Your task to perform on an android device: toggle improve location accuracy Image 0: 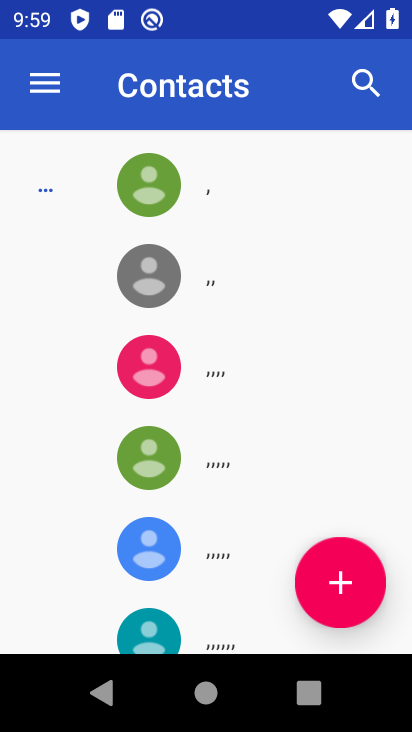
Step 0: press home button
Your task to perform on an android device: toggle improve location accuracy Image 1: 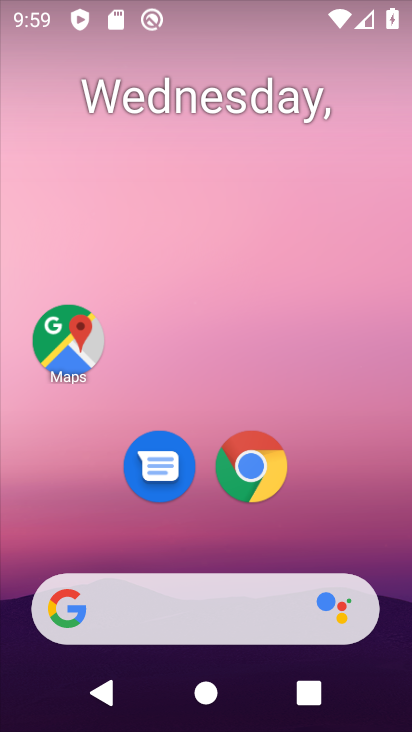
Step 1: drag from (240, 723) to (263, 125)
Your task to perform on an android device: toggle improve location accuracy Image 2: 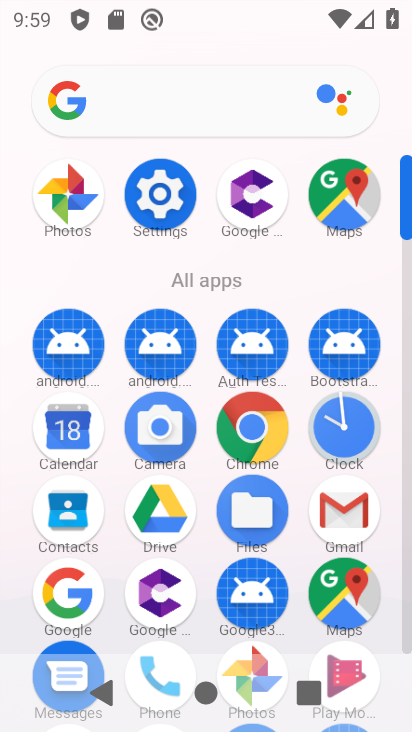
Step 2: click (141, 194)
Your task to perform on an android device: toggle improve location accuracy Image 3: 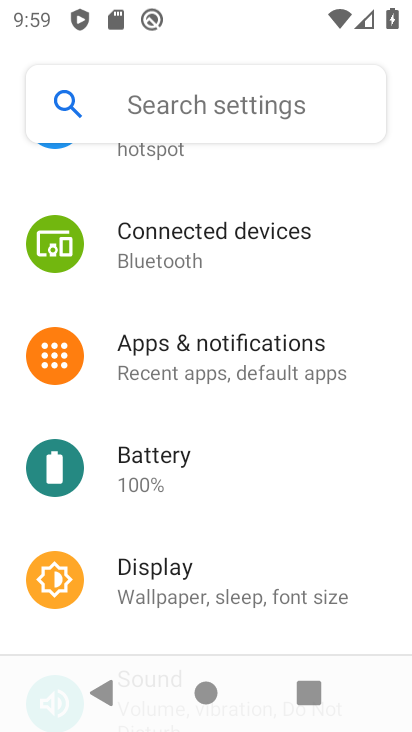
Step 3: drag from (195, 230) to (192, 531)
Your task to perform on an android device: toggle improve location accuracy Image 4: 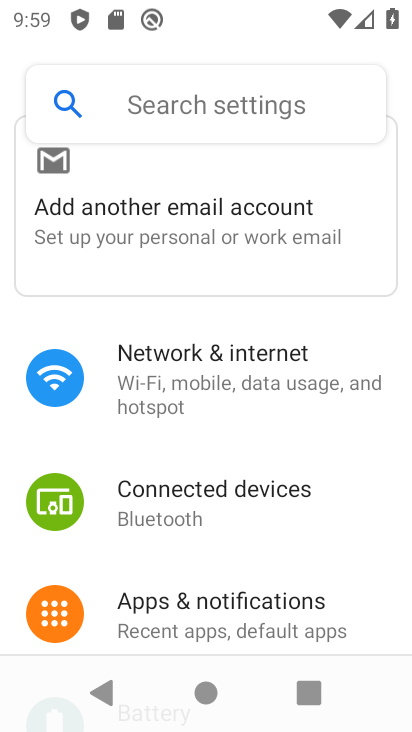
Step 4: drag from (198, 597) to (205, 211)
Your task to perform on an android device: toggle improve location accuracy Image 5: 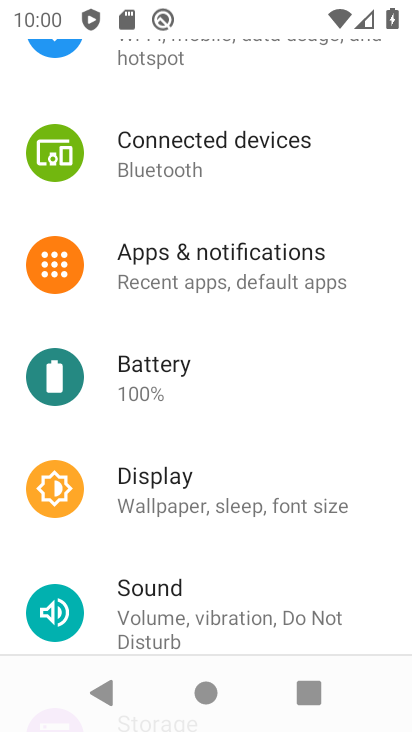
Step 5: drag from (196, 612) to (200, 249)
Your task to perform on an android device: toggle improve location accuracy Image 6: 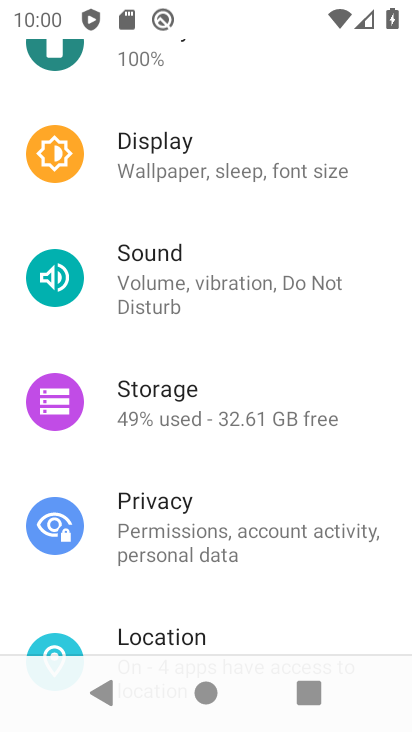
Step 6: drag from (223, 612) to (230, 369)
Your task to perform on an android device: toggle improve location accuracy Image 7: 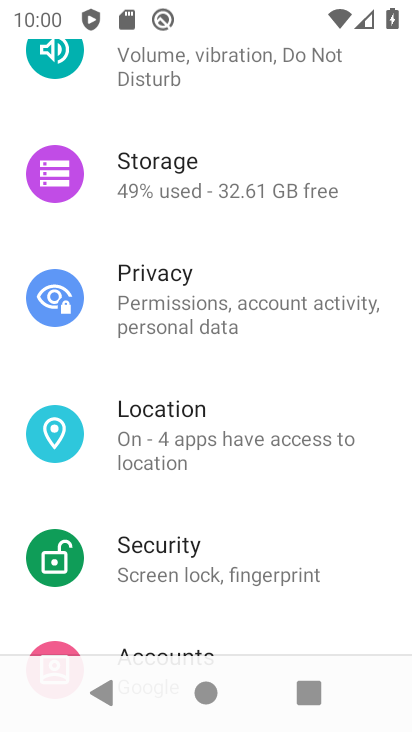
Step 7: click (167, 436)
Your task to perform on an android device: toggle improve location accuracy Image 8: 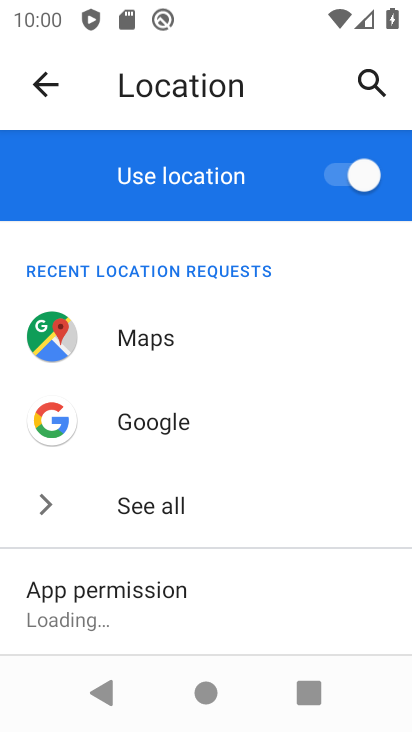
Step 8: drag from (205, 613) to (210, 349)
Your task to perform on an android device: toggle improve location accuracy Image 9: 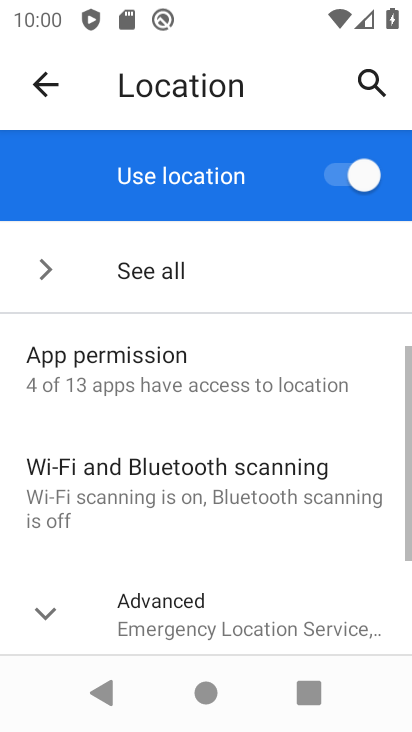
Step 9: click (195, 612)
Your task to perform on an android device: toggle improve location accuracy Image 10: 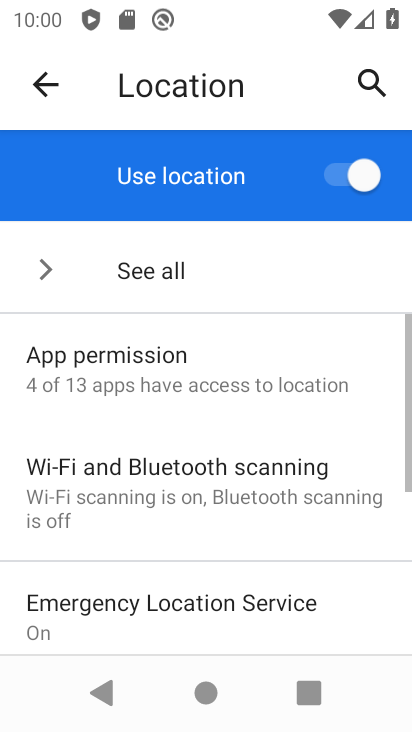
Step 10: drag from (217, 624) to (218, 376)
Your task to perform on an android device: toggle improve location accuracy Image 11: 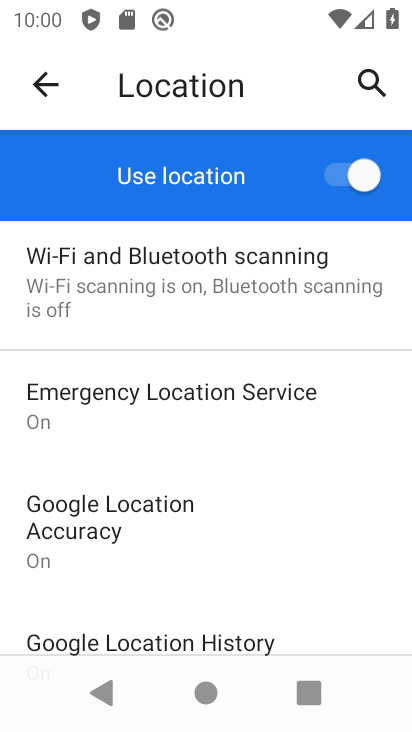
Step 11: click (137, 503)
Your task to perform on an android device: toggle improve location accuracy Image 12: 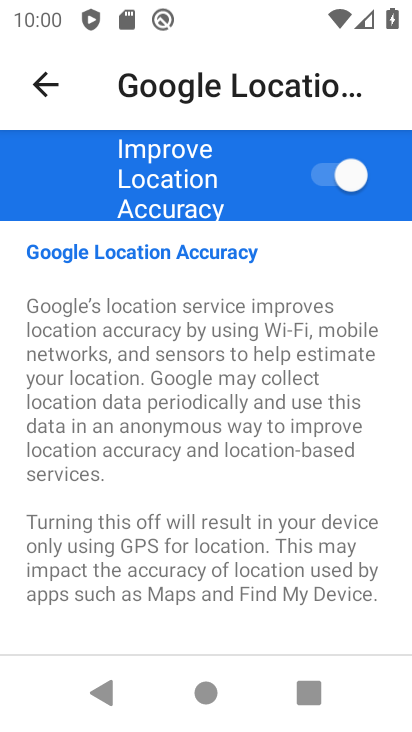
Step 12: click (323, 179)
Your task to perform on an android device: toggle improve location accuracy Image 13: 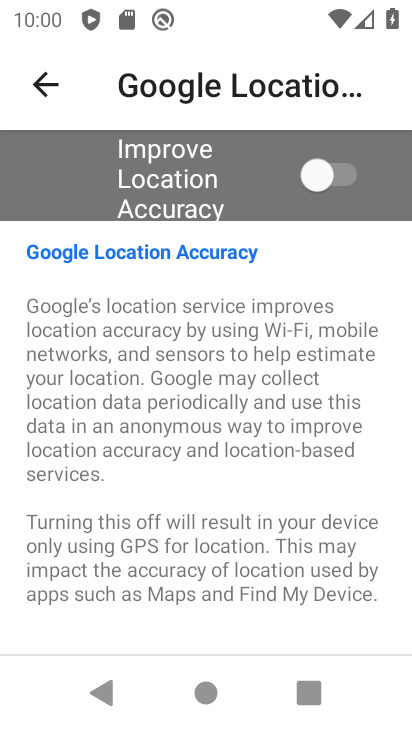
Step 13: task complete